Your task to perform on an android device: Show me the alarms in the clock app Image 0: 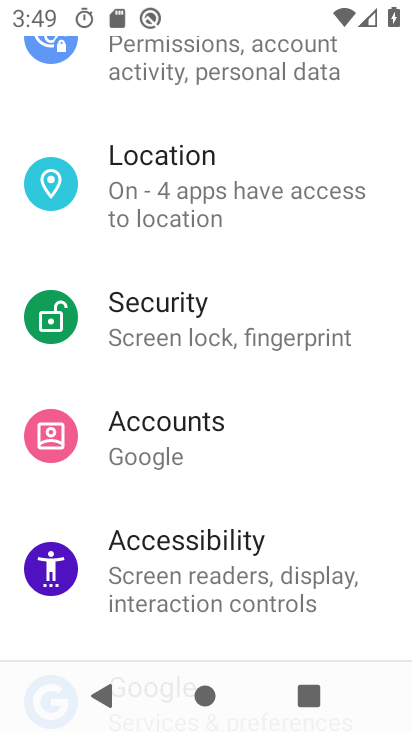
Step 0: press home button
Your task to perform on an android device: Show me the alarms in the clock app Image 1: 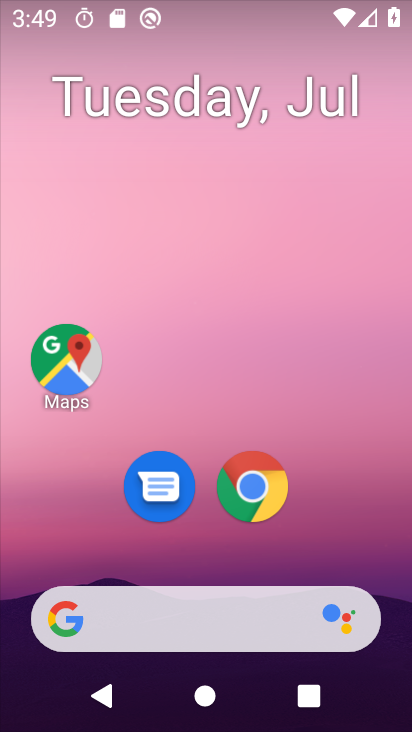
Step 1: drag from (380, 544) to (356, 101)
Your task to perform on an android device: Show me the alarms in the clock app Image 2: 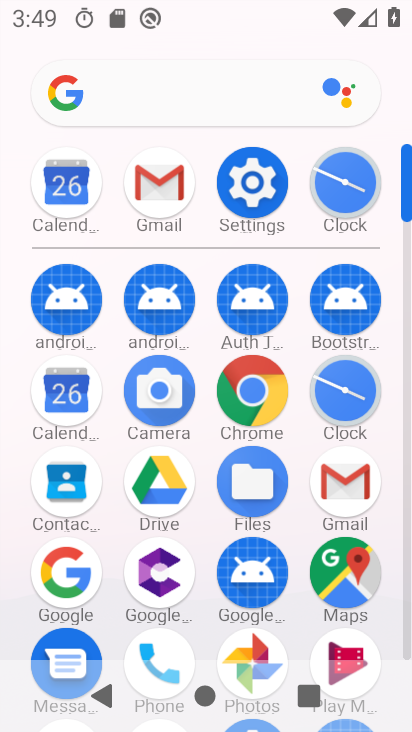
Step 2: click (337, 191)
Your task to perform on an android device: Show me the alarms in the clock app Image 3: 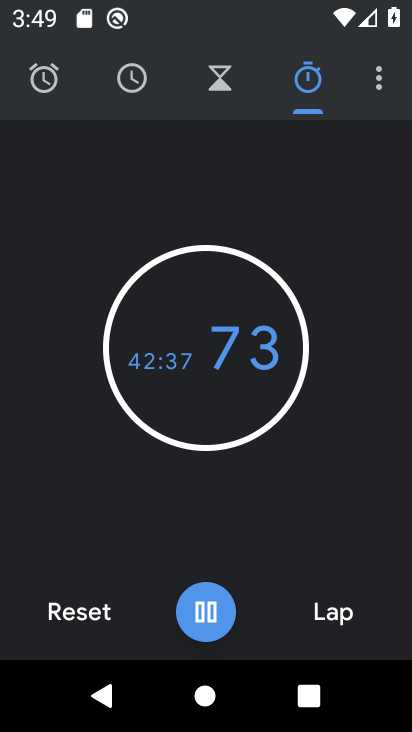
Step 3: click (50, 102)
Your task to perform on an android device: Show me the alarms in the clock app Image 4: 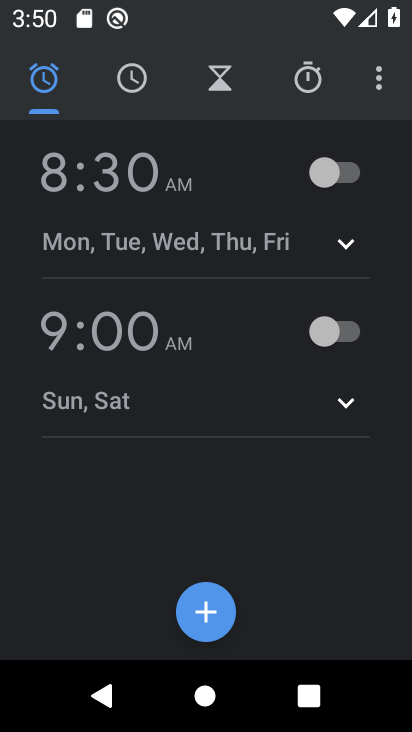
Step 4: task complete